Your task to perform on an android device: Show me popular videos on Youtube Image 0: 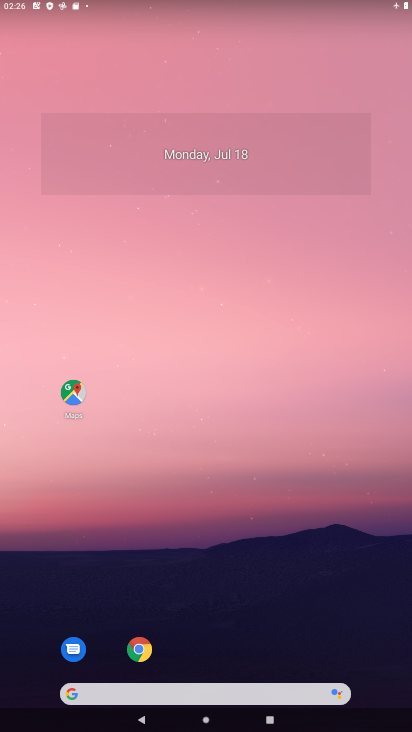
Step 0: drag from (223, 713) to (237, 7)
Your task to perform on an android device: Show me popular videos on Youtube Image 1: 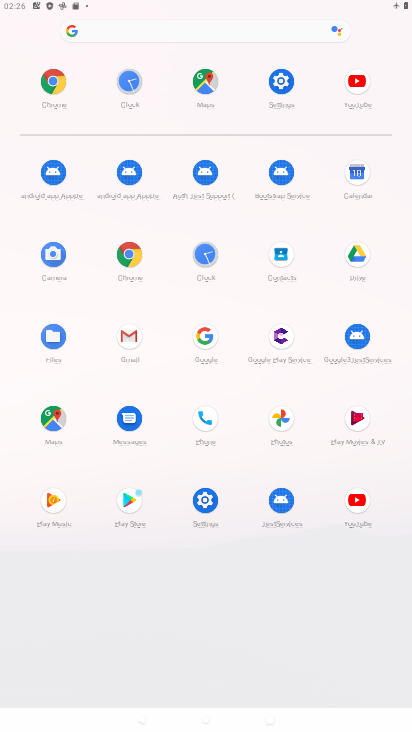
Step 1: click (357, 499)
Your task to perform on an android device: Show me popular videos on Youtube Image 2: 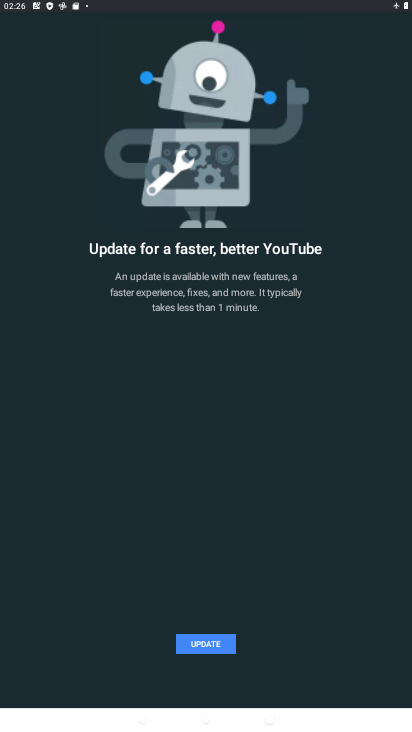
Step 2: click (204, 646)
Your task to perform on an android device: Show me popular videos on Youtube Image 3: 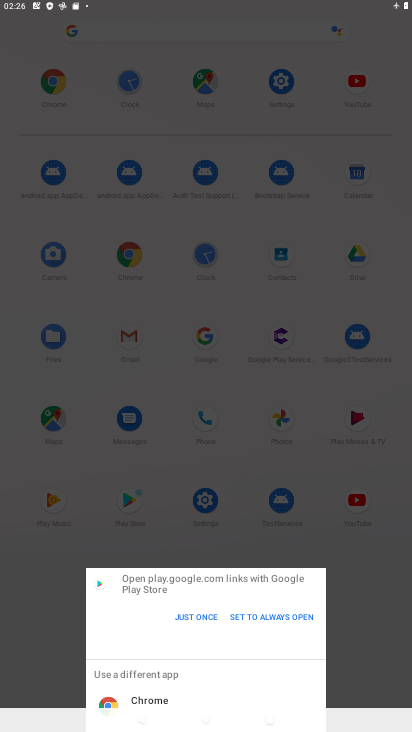
Step 3: click (209, 616)
Your task to perform on an android device: Show me popular videos on Youtube Image 4: 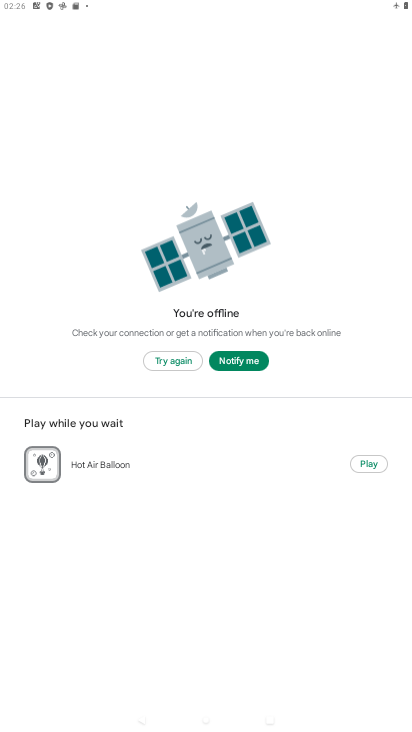
Step 4: task complete